Your task to perform on an android device: search for starred emails in the gmail app Image 0: 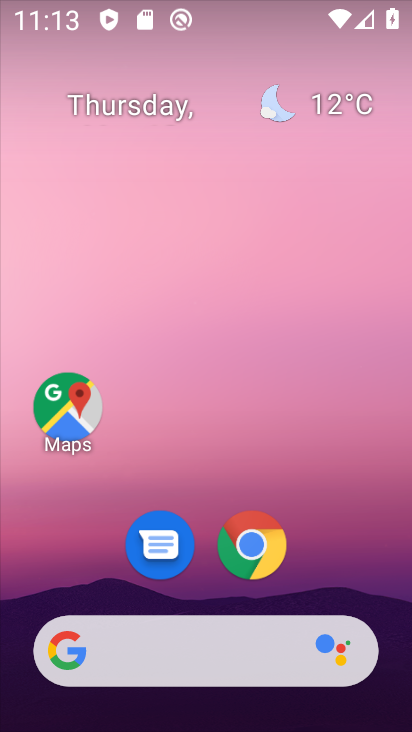
Step 0: drag from (303, 529) to (299, 138)
Your task to perform on an android device: search for starred emails in the gmail app Image 1: 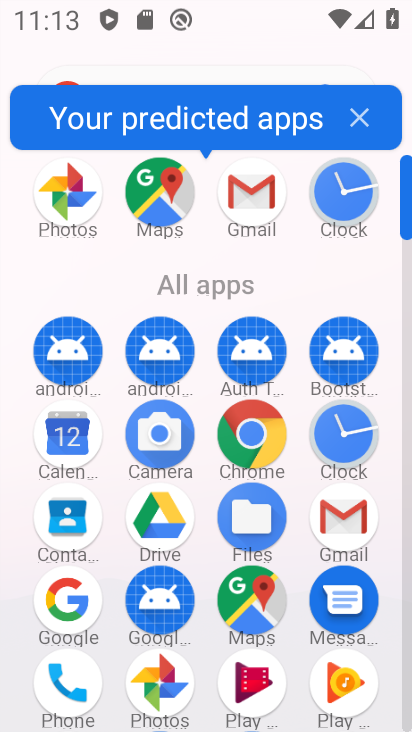
Step 1: click (258, 200)
Your task to perform on an android device: search for starred emails in the gmail app Image 2: 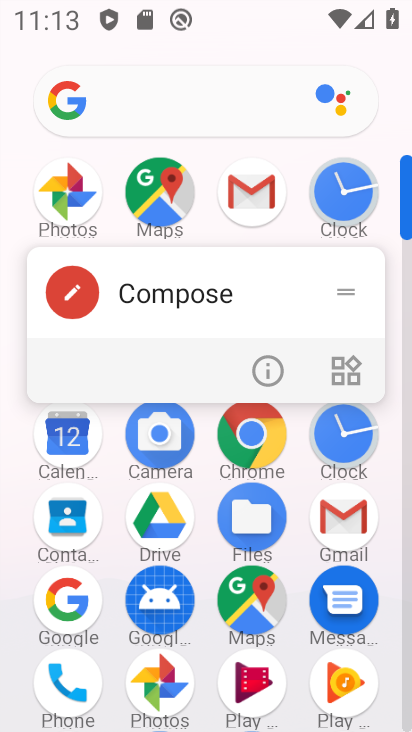
Step 2: click (259, 200)
Your task to perform on an android device: search for starred emails in the gmail app Image 3: 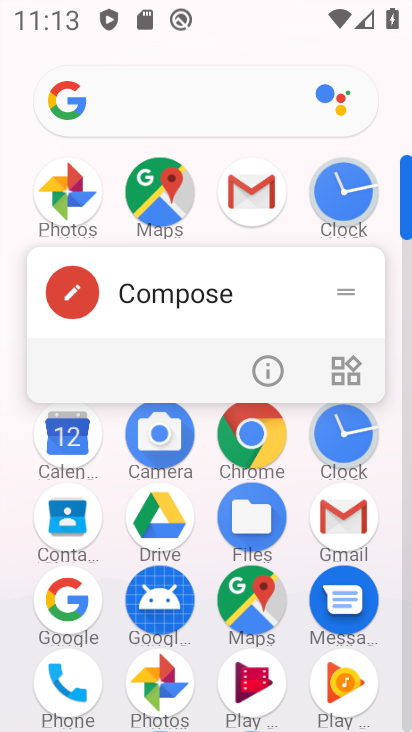
Step 3: click (277, 195)
Your task to perform on an android device: search for starred emails in the gmail app Image 4: 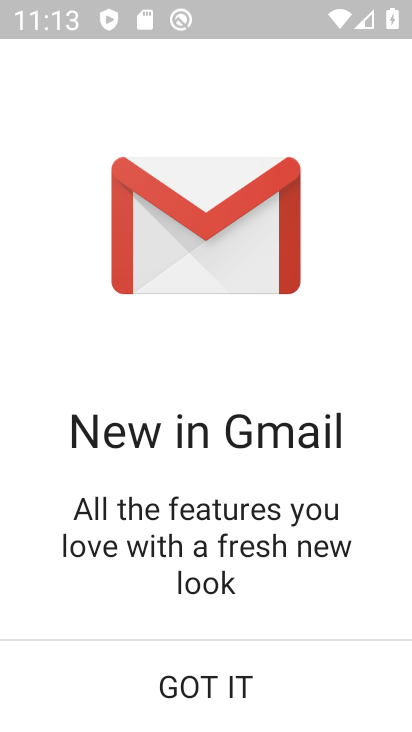
Step 4: click (228, 676)
Your task to perform on an android device: search for starred emails in the gmail app Image 5: 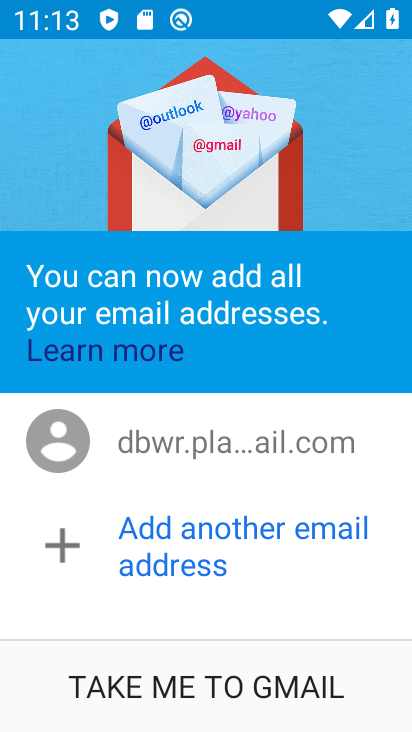
Step 5: click (228, 676)
Your task to perform on an android device: search for starred emails in the gmail app Image 6: 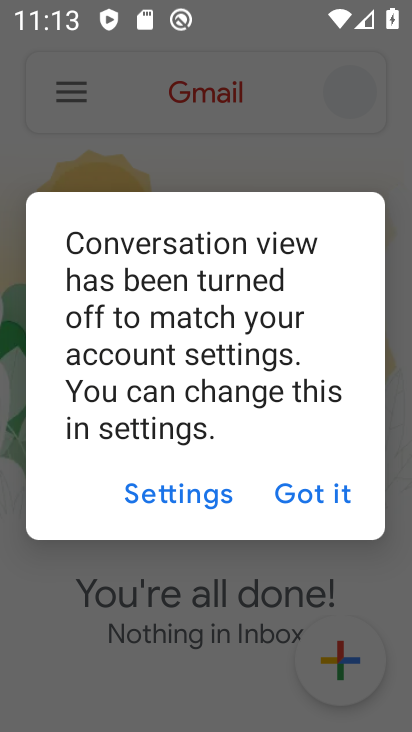
Step 6: click (313, 505)
Your task to perform on an android device: search for starred emails in the gmail app Image 7: 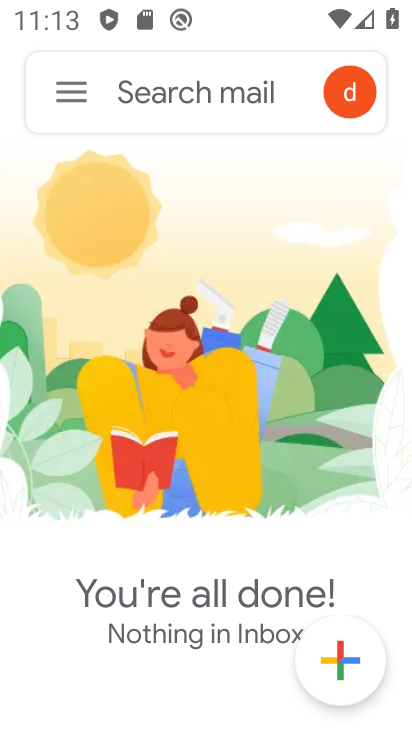
Step 7: click (63, 94)
Your task to perform on an android device: search for starred emails in the gmail app Image 8: 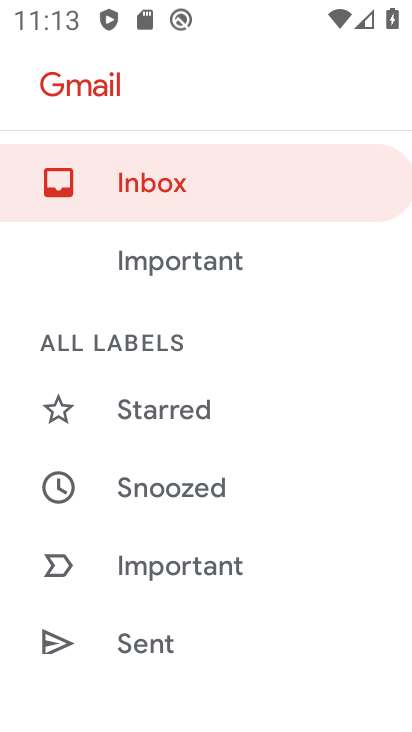
Step 8: click (180, 396)
Your task to perform on an android device: search for starred emails in the gmail app Image 9: 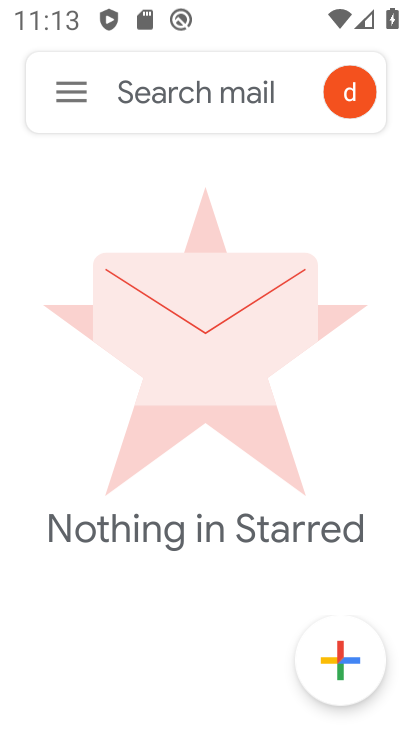
Step 9: task complete